Your task to perform on an android device: delete browsing data in the chrome app Image 0: 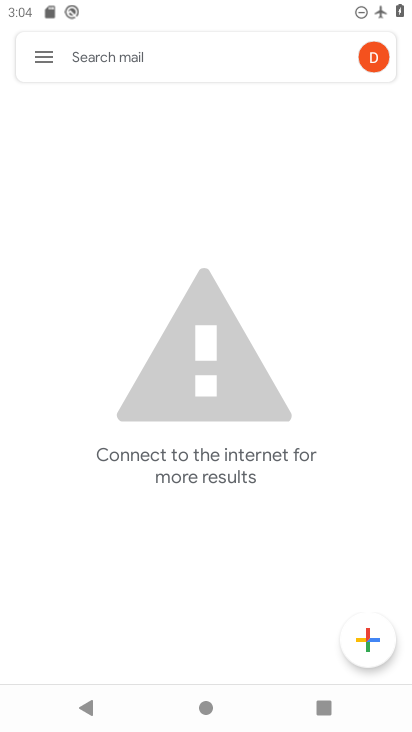
Step 0: press home button
Your task to perform on an android device: delete browsing data in the chrome app Image 1: 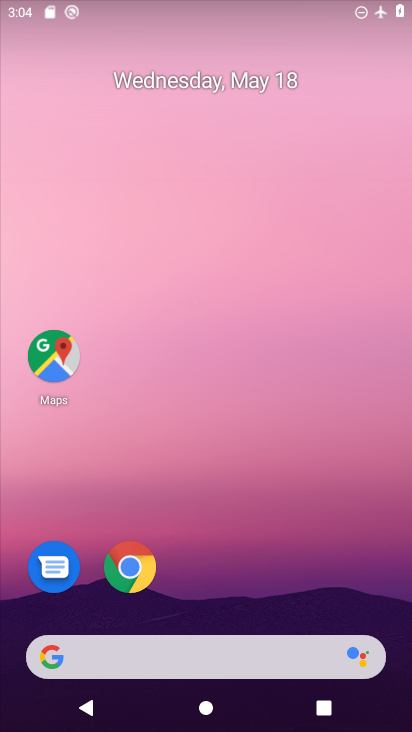
Step 1: drag from (231, 583) to (228, 285)
Your task to perform on an android device: delete browsing data in the chrome app Image 2: 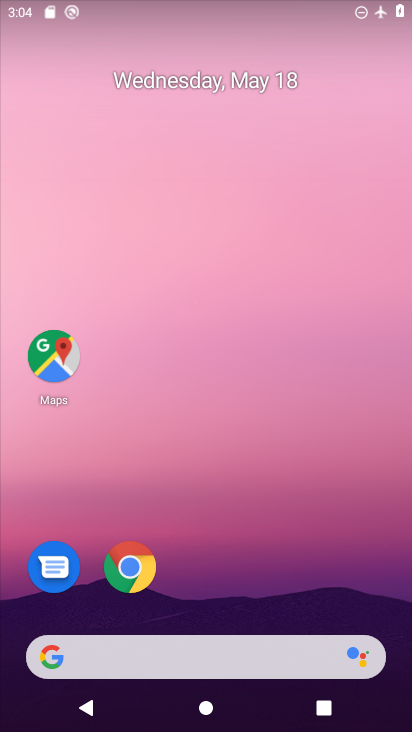
Step 2: drag from (217, 585) to (224, 251)
Your task to perform on an android device: delete browsing data in the chrome app Image 3: 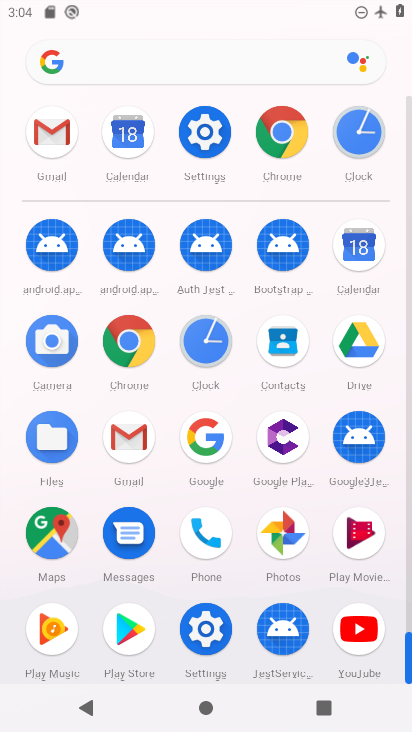
Step 3: click (274, 131)
Your task to perform on an android device: delete browsing data in the chrome app Image 4: 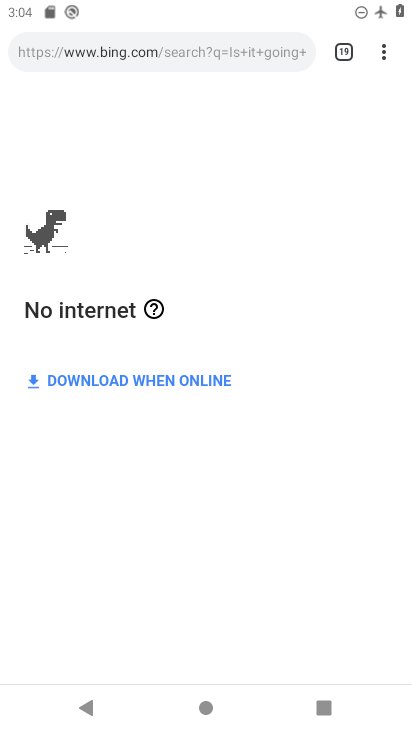
Step 4: click (366, 50)
Your task to perform on an android device: delete browsing data in the chrome app Image 5: 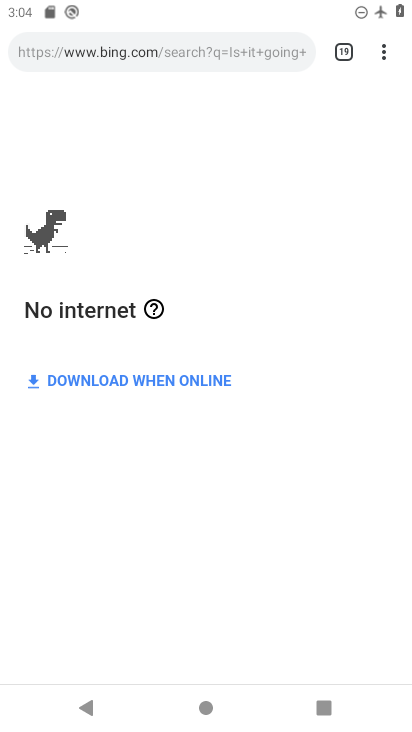
Step 5: click (379, 53)
Your task to perform on an android device: delete browsing data in the chrome app Image 6: 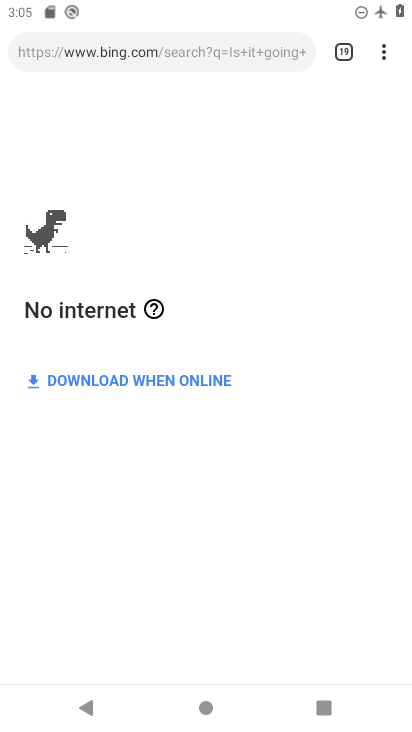
Step 6: click (369, 50)
Your task to perform on an android device: delete browsing data in the chrome app Image 7: 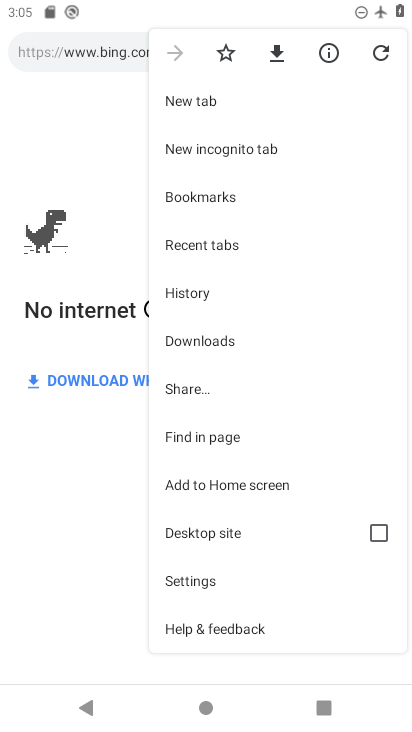
Step 7: click (205, 285)
Your task to perform on an android device: delete browsing data in the chrome app Image 8: 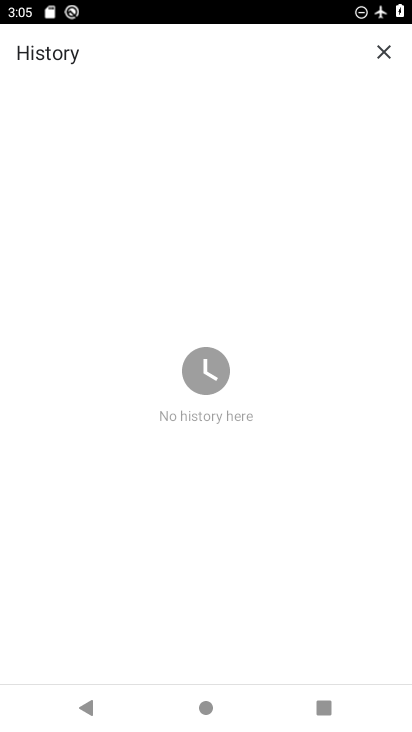
Step 8: task complete